Your task to perform on an android device: turn on notifications settings in the gmail app Image 0: 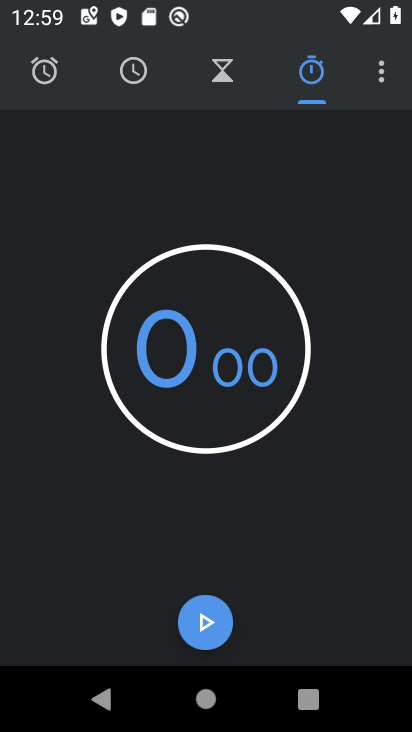
Step 0: press home button
Your task to perform on an android device: turn on notifications settings in the gmail app Image 1: 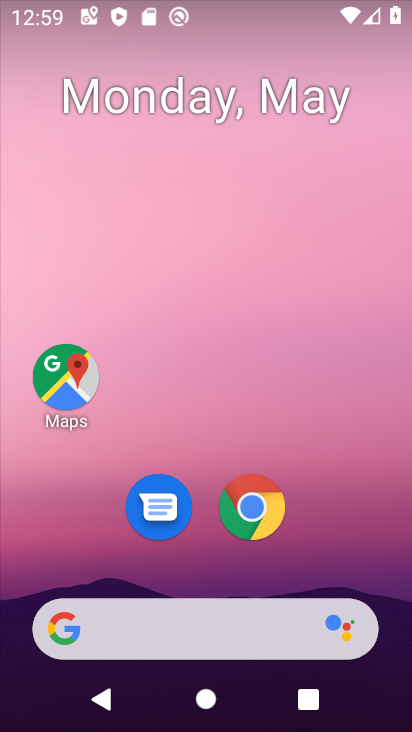
Step 1: drag from (236, 722) to (230, 93)
Your task to perform on an android device: turn on notifications settings in the gmail app Image 2: 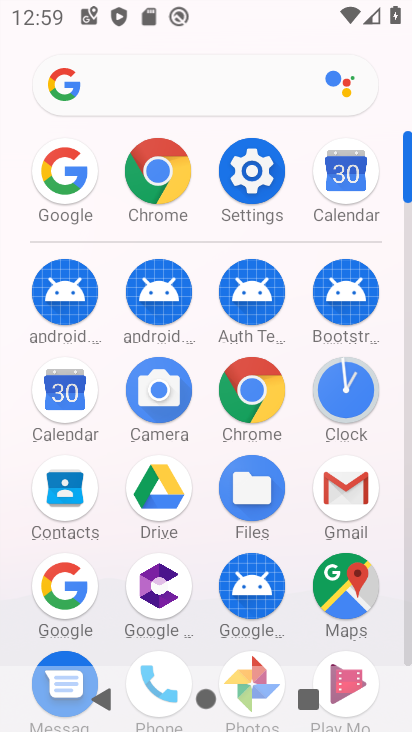
Step 2: click (342, 492)
Your task to perform on an android device: turn on notifications settings in the gmail app Image 3: 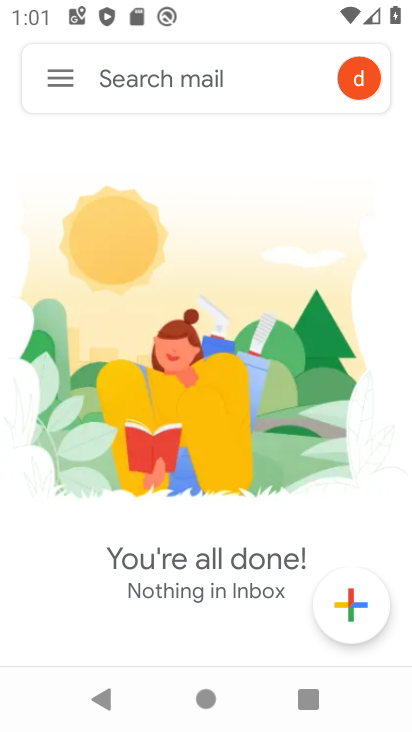
Step 3: click (59, 77)
Your task to perform on an android device: turn on notifications settings in the gmail app Image 4: 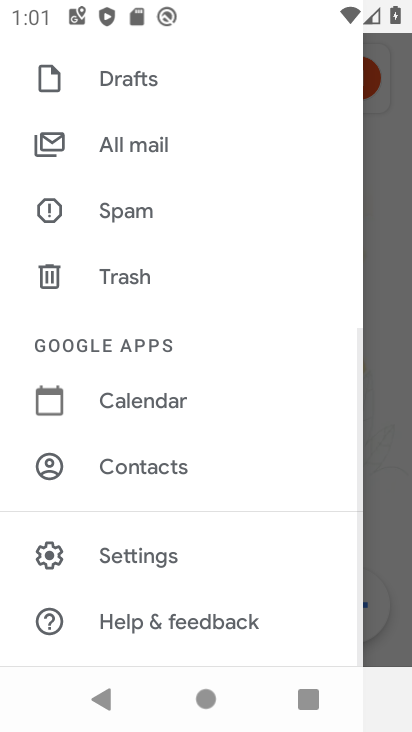
Step 4: click (141, 562)
Your task to perform on an android device: turn on notifications settings in the gmail app Image 5: 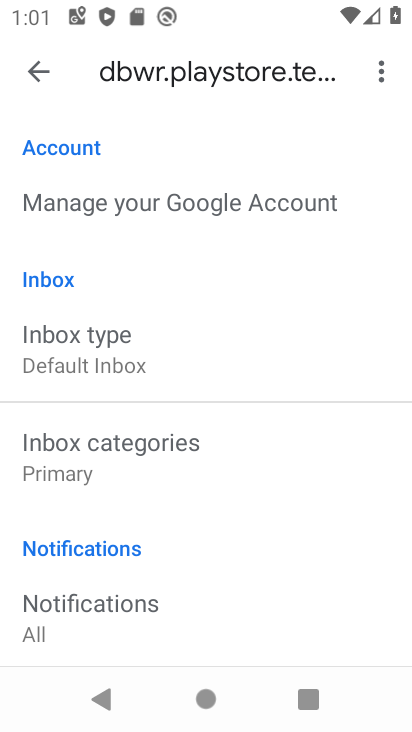
Step 5: task complete